Your task to perform on an android device: show emergency info Image 0: 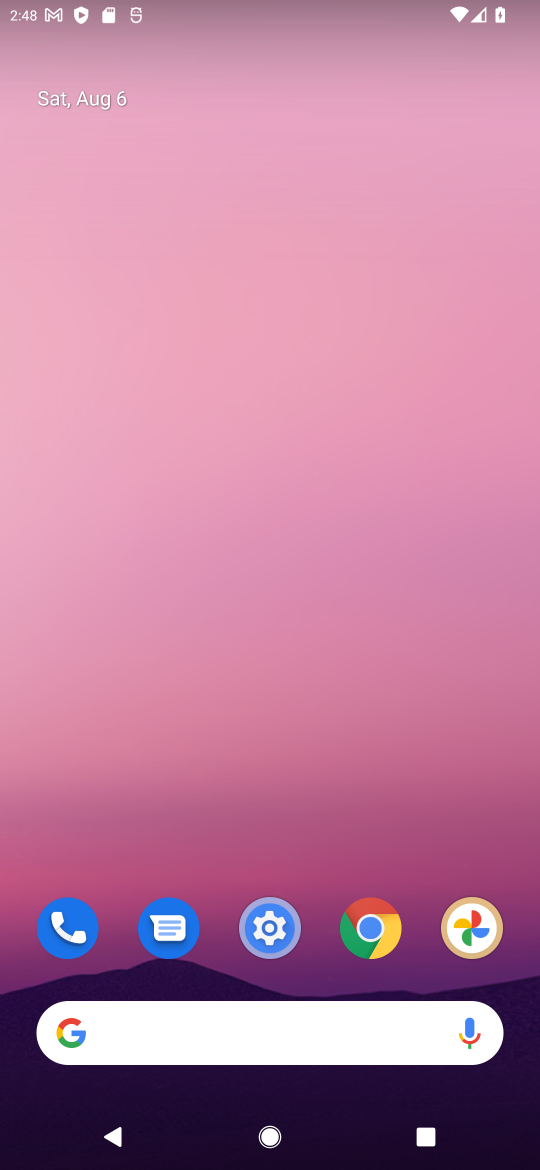
Step 0: click (259, 924)
Your task to perform on an android device: show emergency info Image 1: 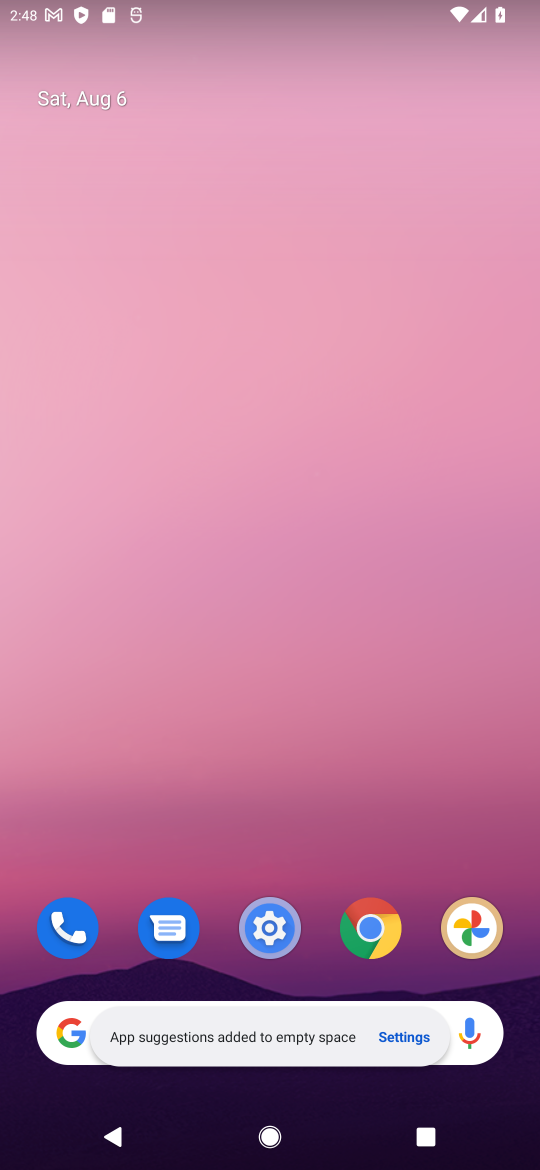
Step 1: click (278, 925)
Your task to perform on an android device: show emergency info Image 2: 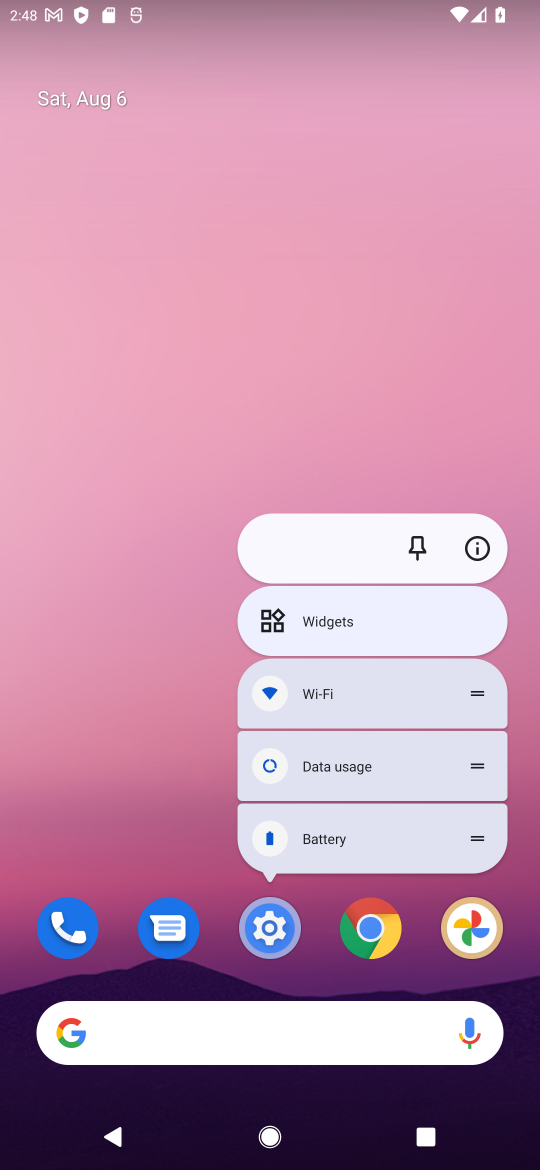
Step 2: click (474, 543)
Your task to perform on an android device: show emergency info Image 3: 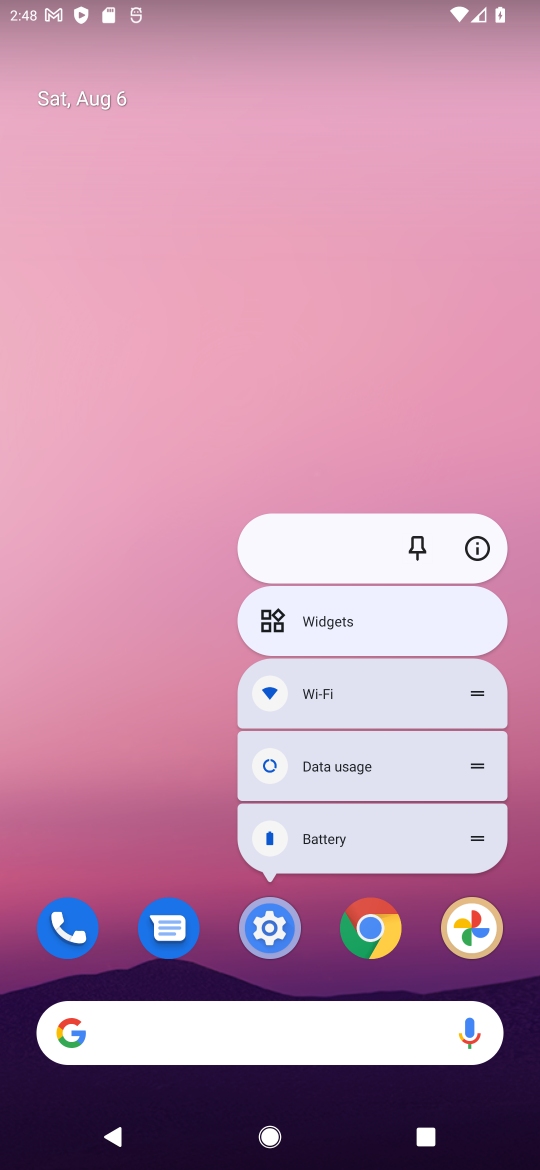
Step 3: click (478, 535)
Your task to perform on an android device: show emergency info Image 4: 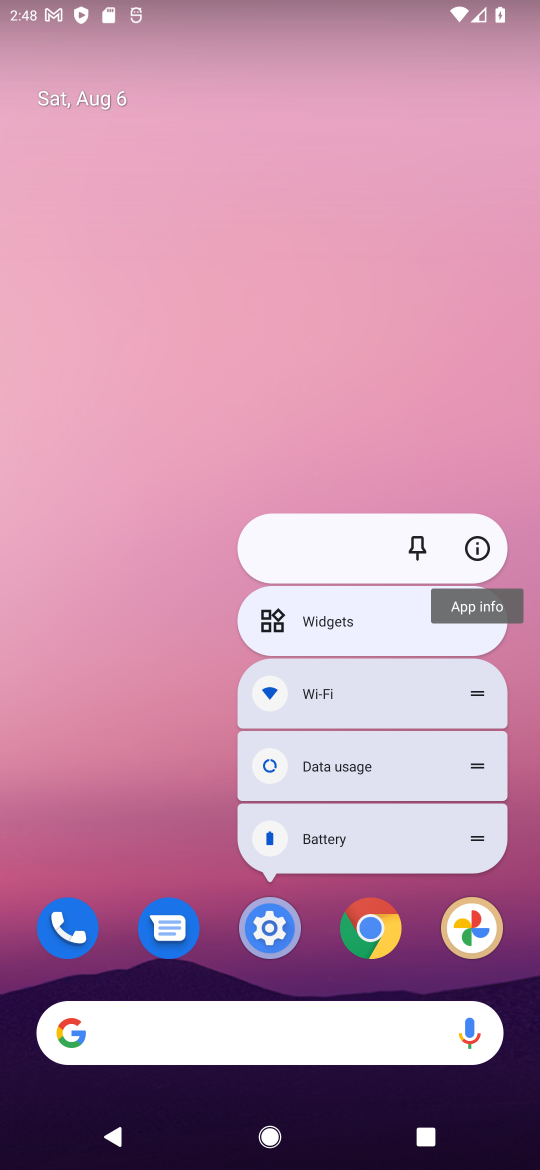
Step 4: click (478, 534)
Your task to perform on an android device: show emergency info Image 5: 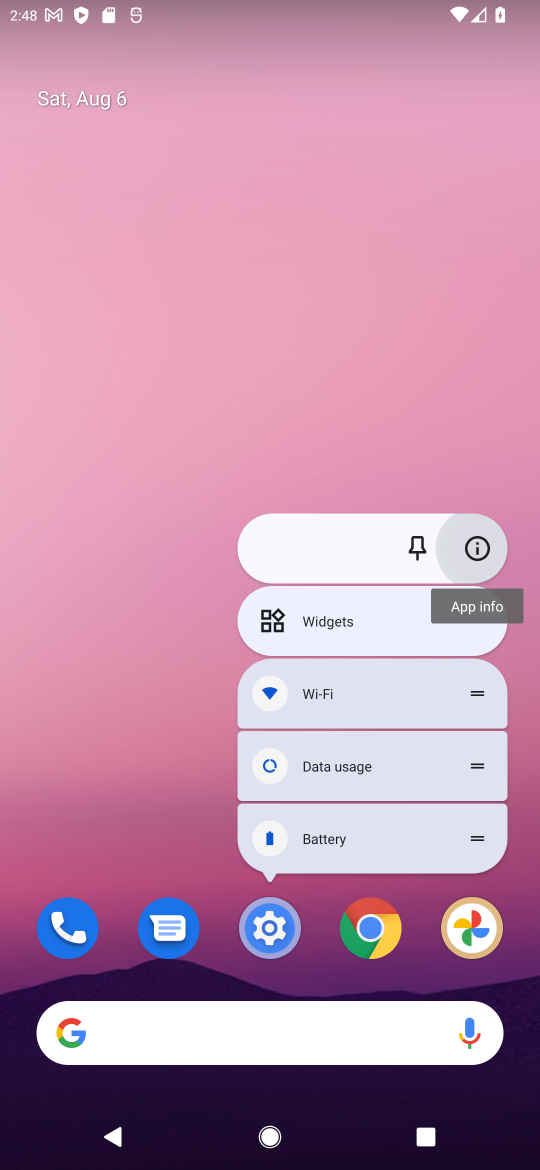
Step 5: click (476, 532)
Your task to perform on an android device: show emergency info Image 6: 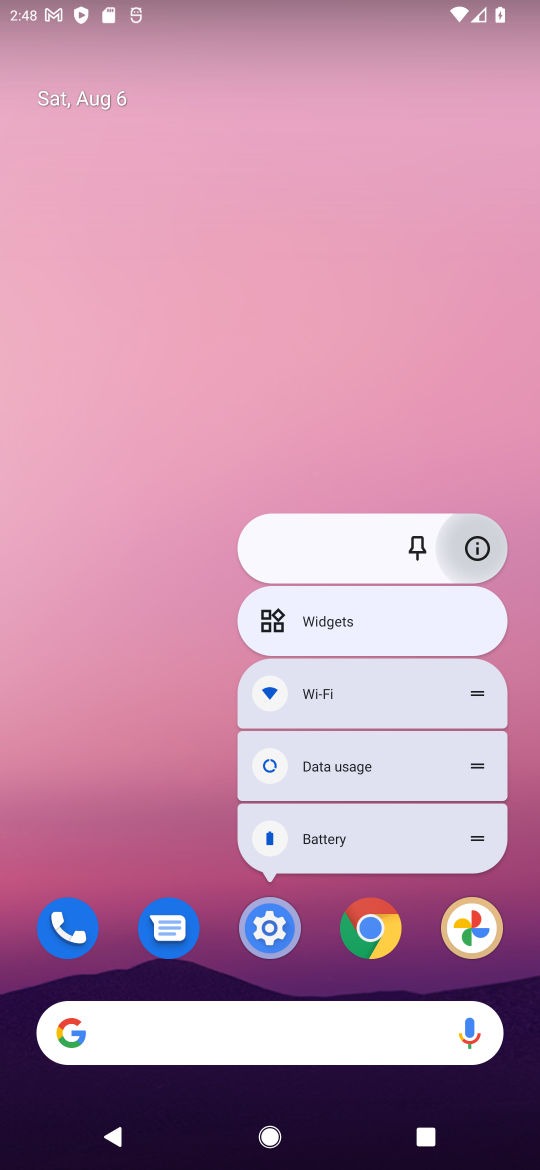
Step 6: click (476, 532)
Your task to perform on an android device: show emergency info Image 7: 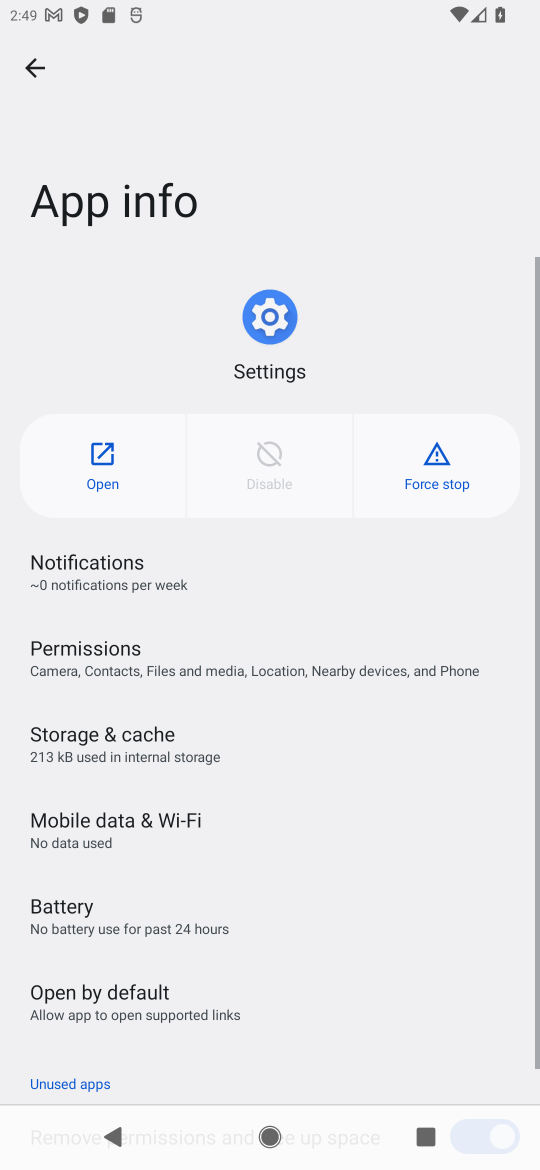
Step 7: click (99, 455)
Your task to perform on an android device: show emergency info Image 8: 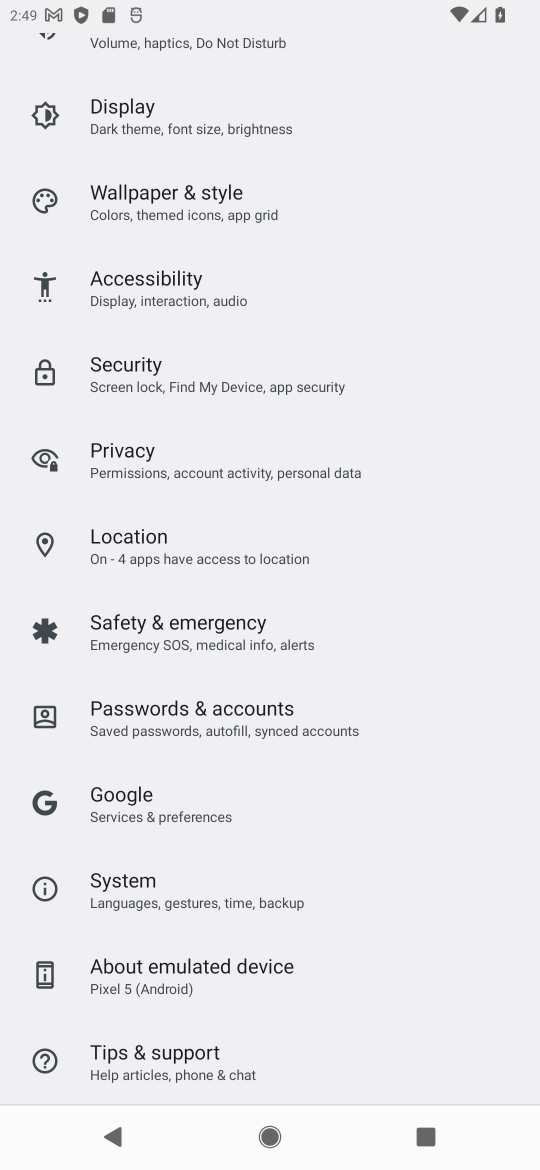
Step 8: drag from (267, 943) to (379, 332)
Your task to perform on an android device: show emergency info Image 9: 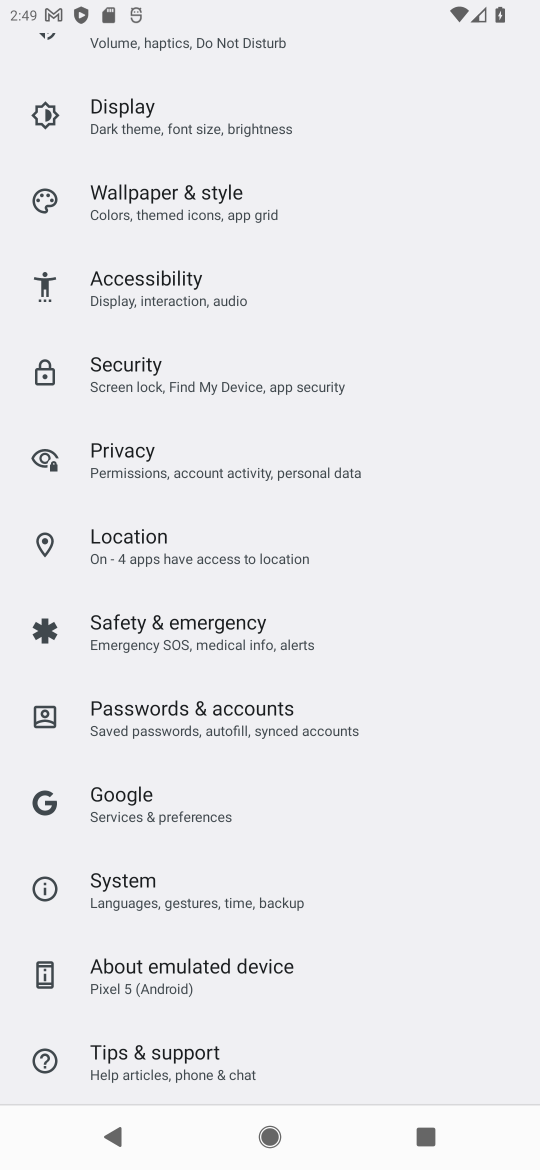
Step 9: click (162, 969)
Your task to perform on an android device: show emergency info Image 10: 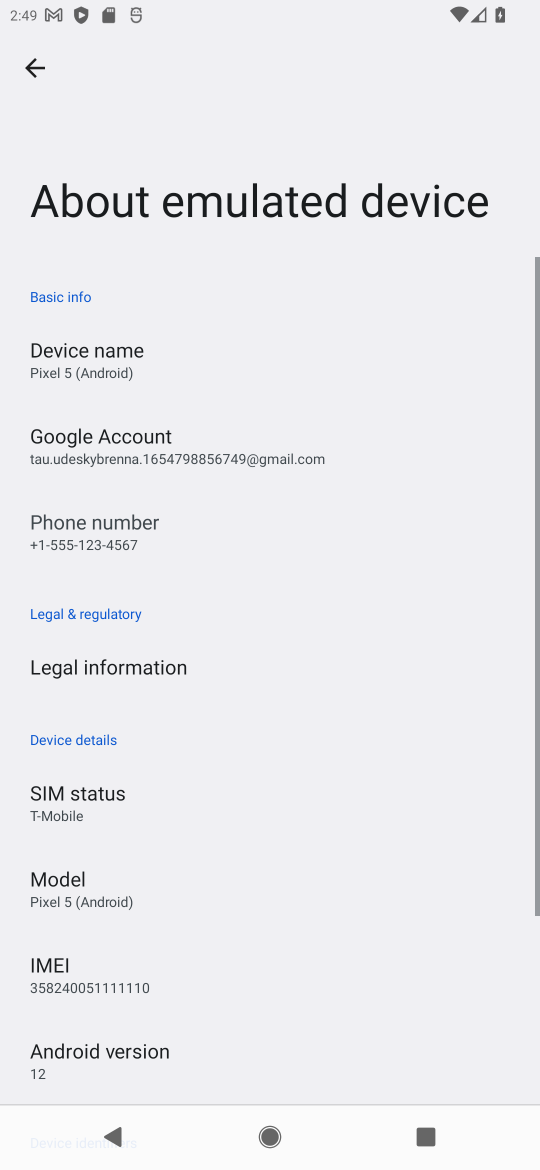
Step 10: click (42, 59)
Your task to perform on an android device: show emergency info Image 11: 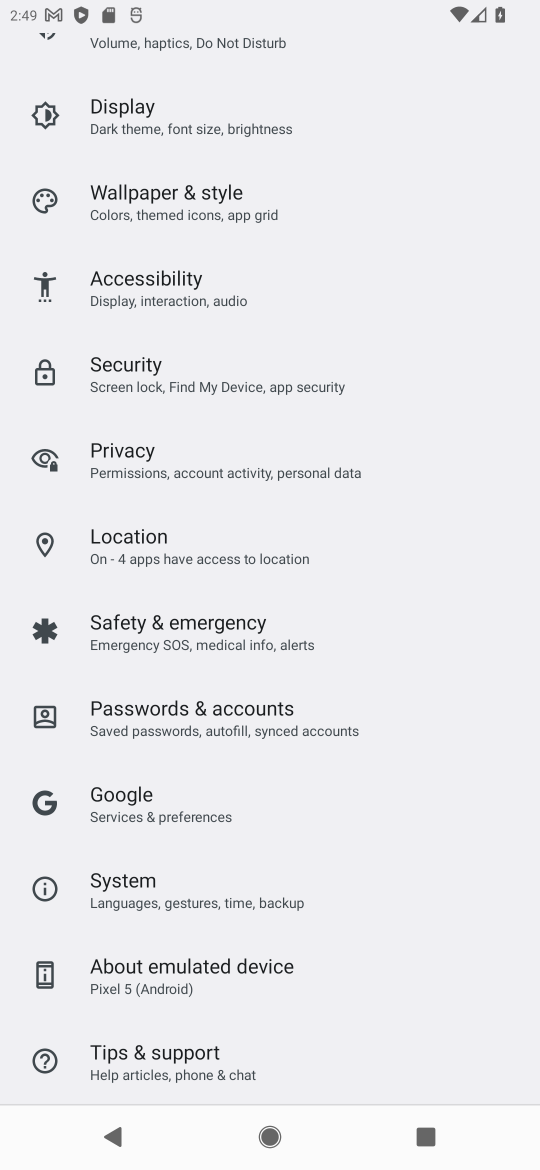
Step 11: click (187, 624)
Your task to perform on an android device: show emergency info Image 12: 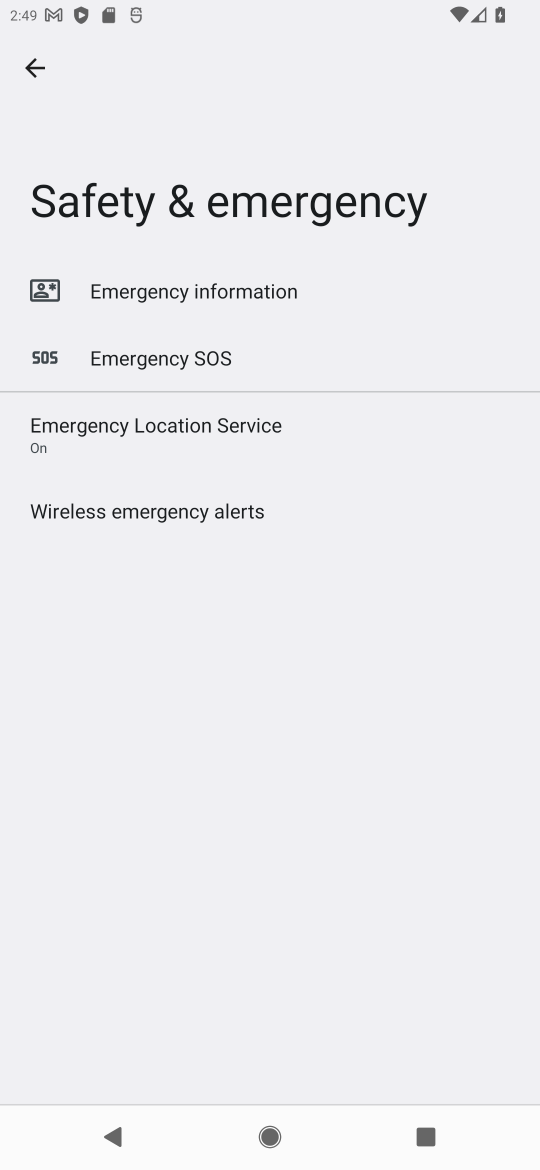
Step 12: task complete